Your task to perform on an android device: find snoozed emails in the gmail app Image 0: 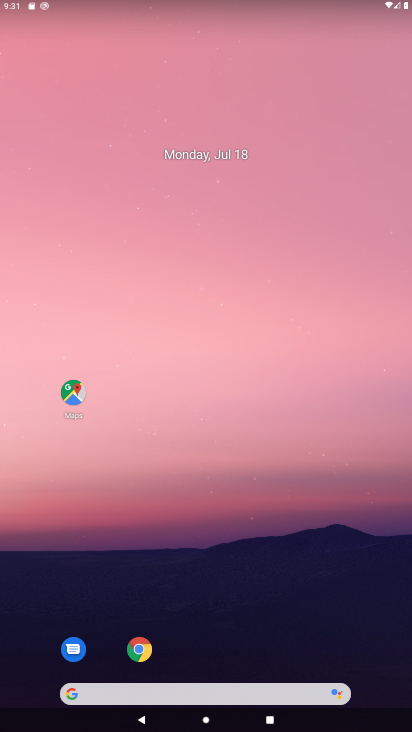
Step 0: drag from (275, 607) to (300, 124)
Your task to perform on an android device: find snoozed emails in the gmail app Image 1: 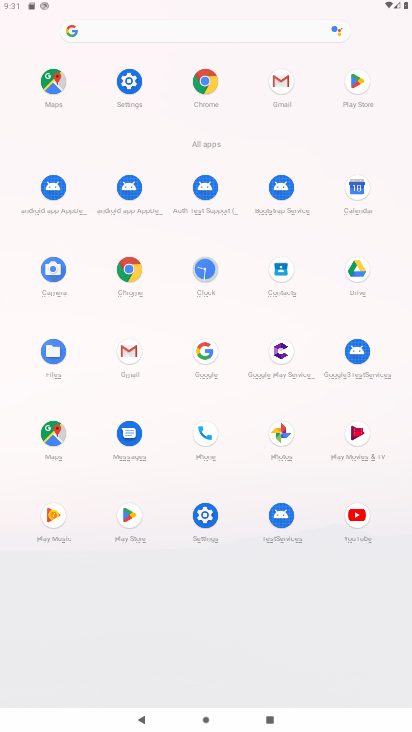
Step 1: click (276, 77)
Your task to perform on an android device: find snoozed emails in the gmail app Image 2: 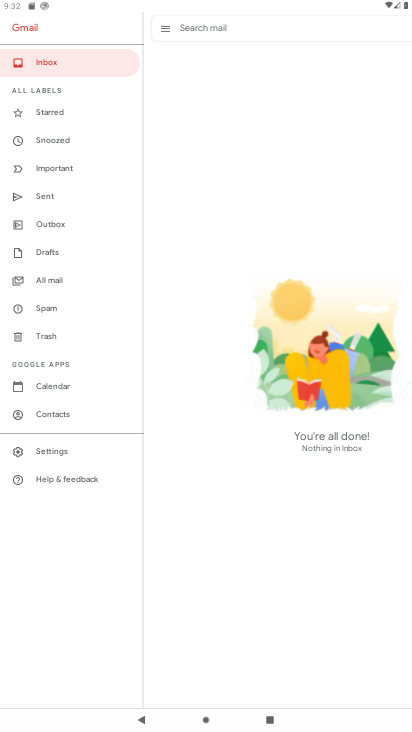
Step 2: click (51, 140)
Your task to perform on an android device: find snoozed emails in the gmail app Image 3: 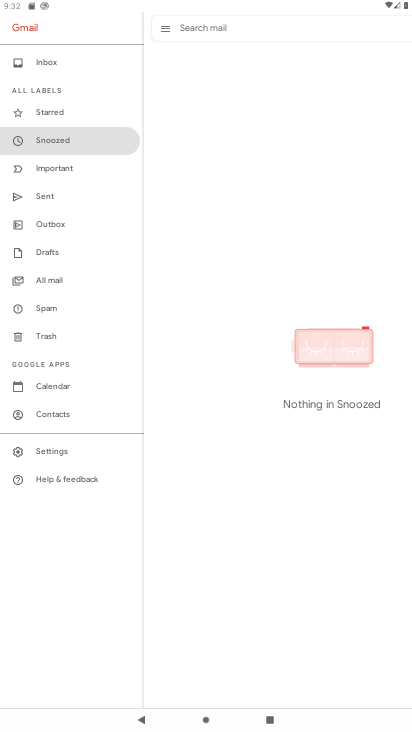
Step 3: task complete